Your task to perform on an android device: Go to location settings Image 0: 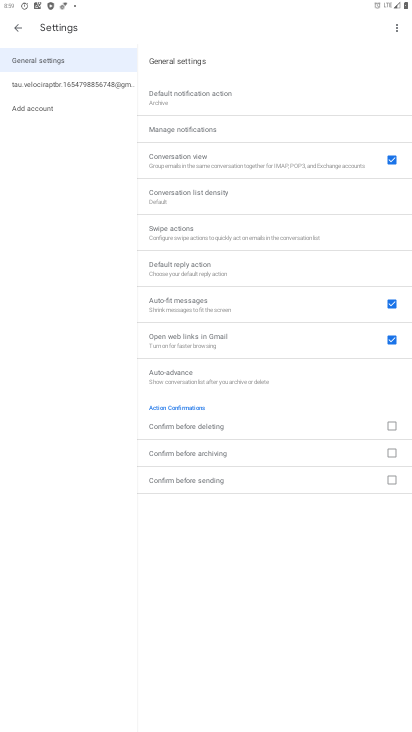
Step 0: press home button
Your task to perform on an android device: Go to location settings Image 1: 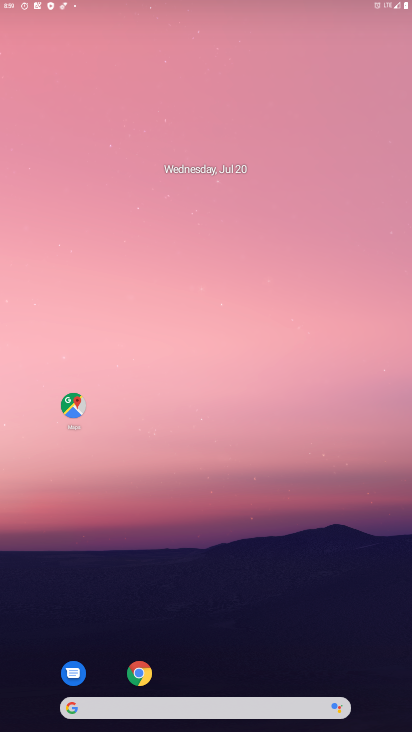
Step 1: drag from (226, 599) to (230, 114)
Your task to perform on an android device: Go to location settings Image 2: 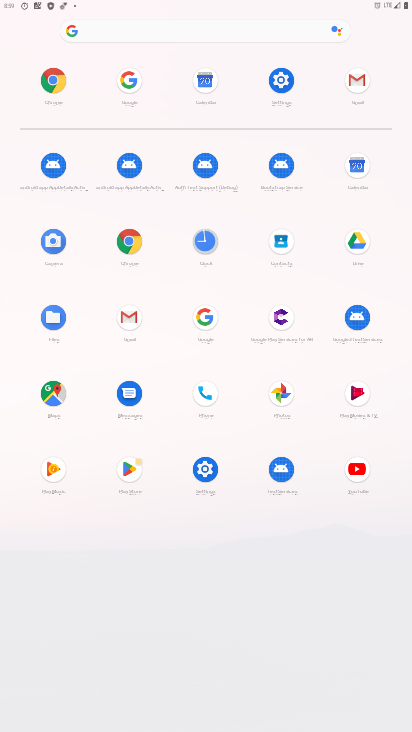
Step 2: click (281, 79)
Your task to perform on an android device: Go to location settings Image 3: 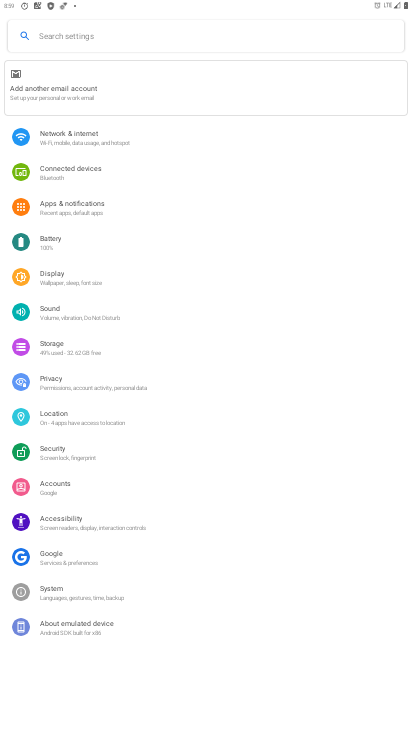
Step 3: click (87, 412)
Your task to perform on an android device: Go to location settings Image 4: 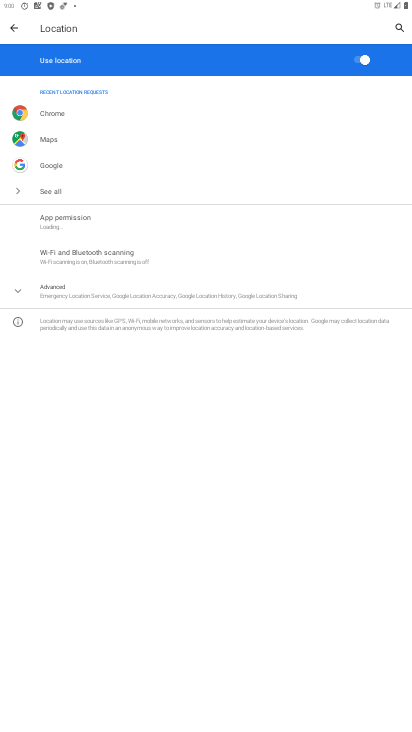
Step 4: task complete